Your task to perform on an android device: Open CNN.com Image 0: 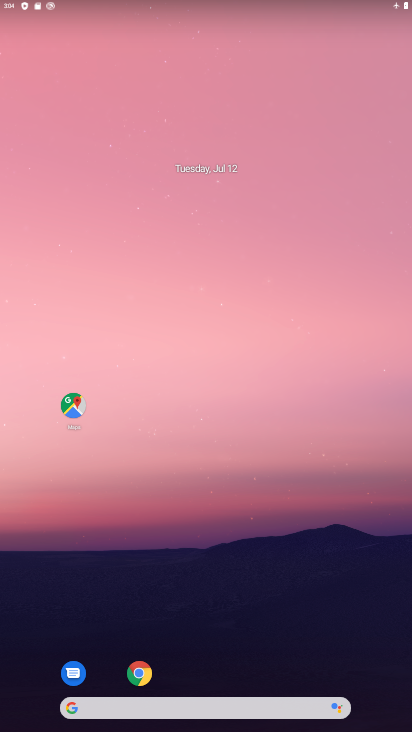
Step 0: click (141, 675)
Your task to perform on an android device: Open CNN.com Image 1: 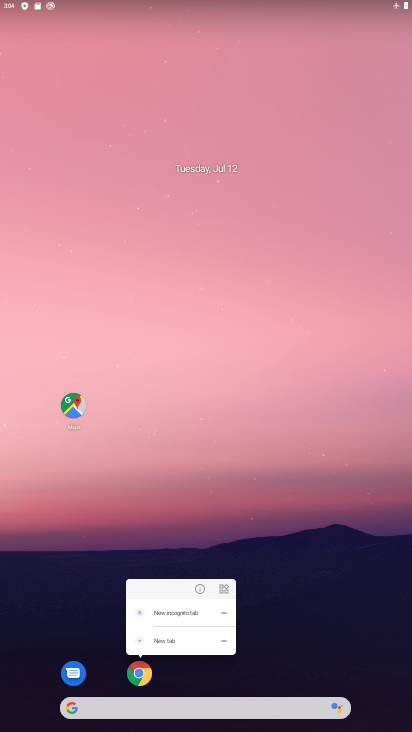
Step 1: click (141, 675)
Your task to perform on an android device: Open CNN.com Image 2: 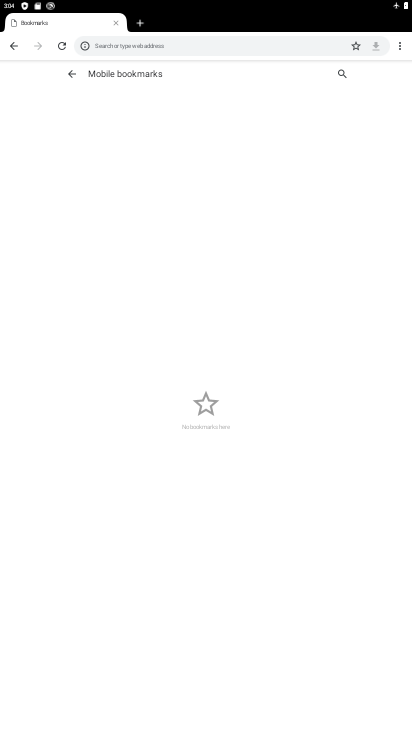
Step 2: click (208, 41)
Your task to perform on an android device: Open CNN.com Image 3: 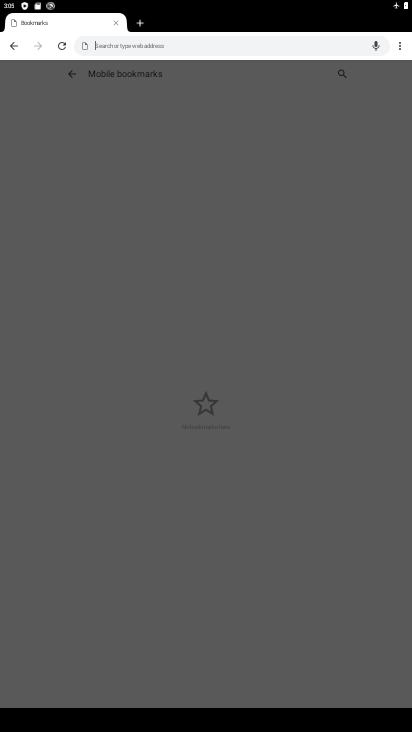
Step 3: type "CNN.com"
Your task to perform on an android device: Open CNN.com Image 4: 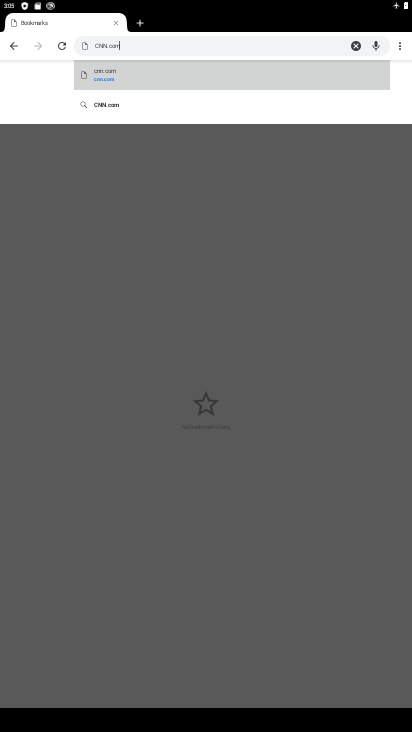
Step 4: click (100, 103)
Your task to perform on an android device: Open CNN.com Image 5: 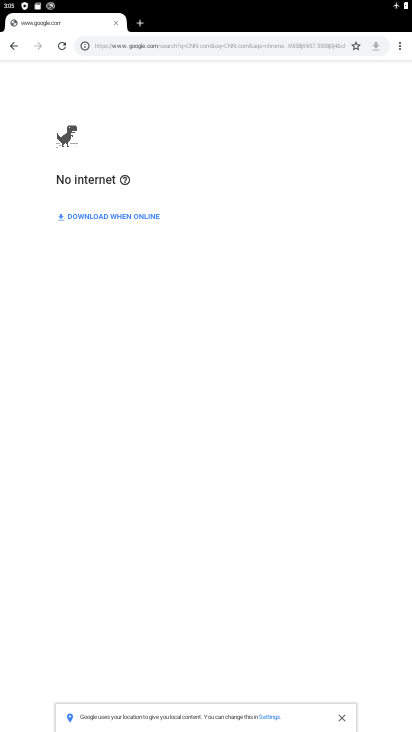
Step 5: task complete